Your task to perform on an android device: add a contact in the contacts app Image 0: 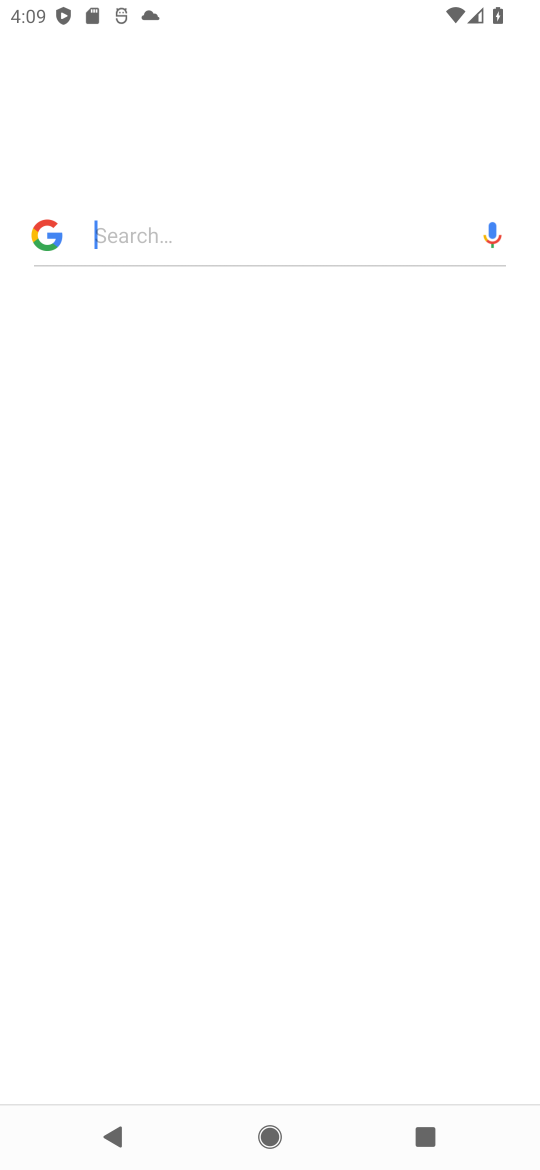
Step 0: press home button
Your task to perform on an android device: add a contact in the contacts app Image 1: 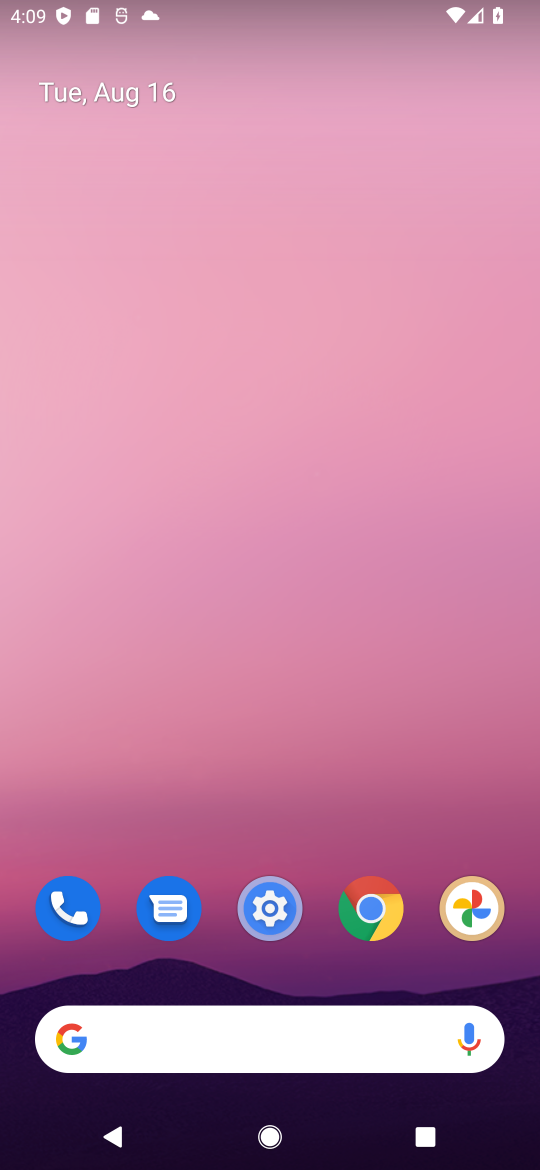
Step 1: drag from (323, 864) to (346, 0)
Your task to perform on an android device: add a contact in the contacts app Image 2: 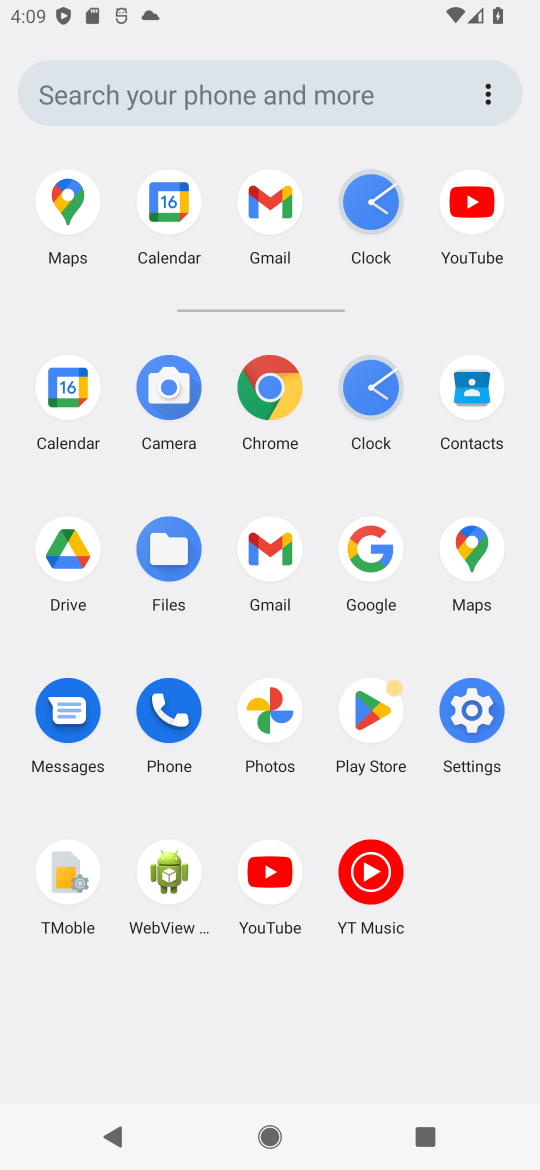
Step 2: click (468, 379)
Your task to perform on an android device: add a contact in the contacts app Image 3: 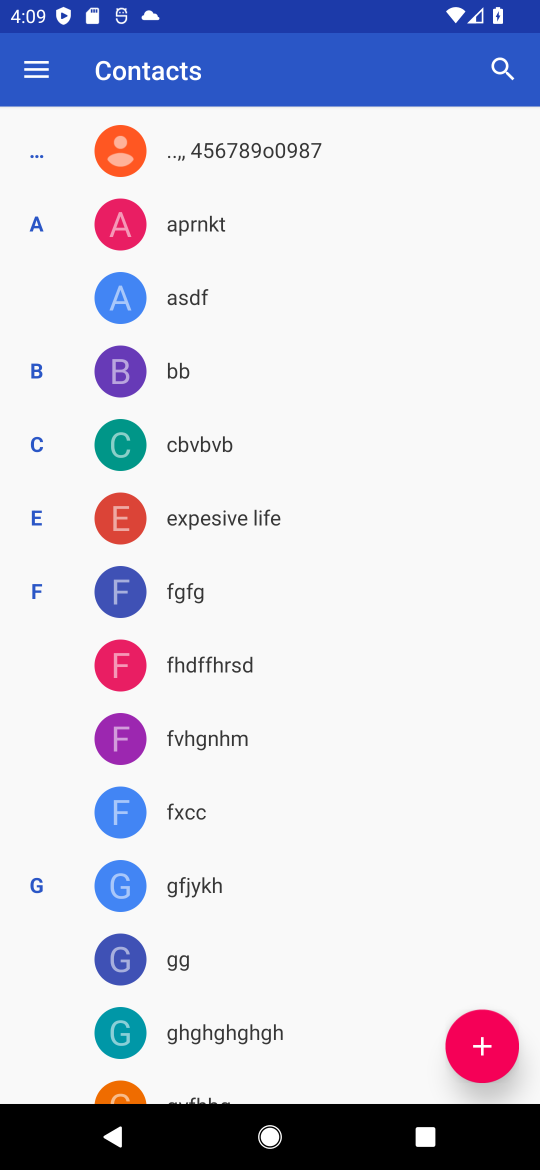
Step 3: click (477, 1039)
Your task to perform on an android device: add a contact in the contacts app Image 4: 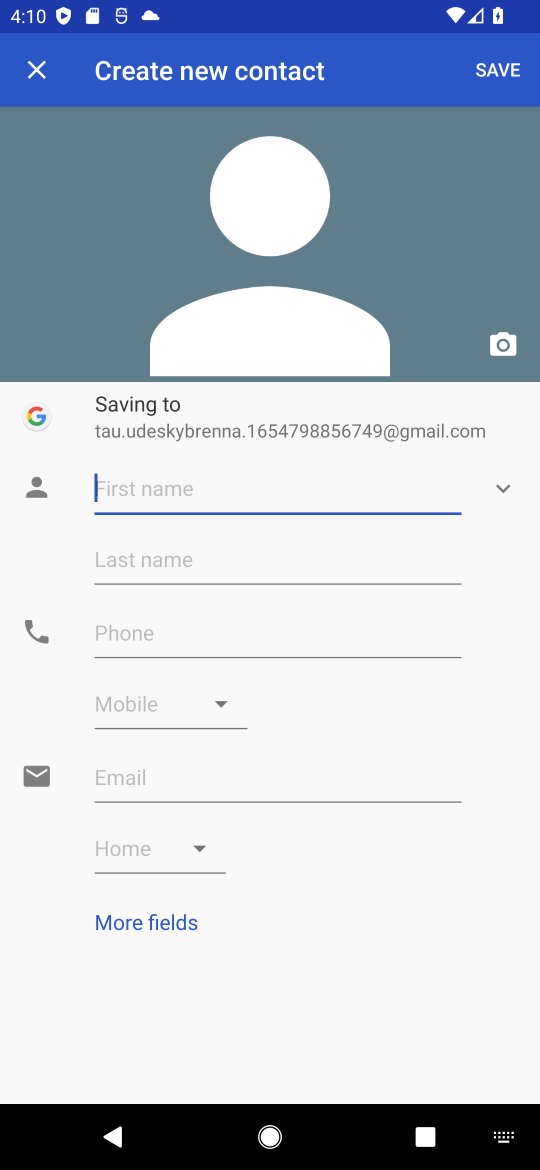
Step 4: type "vtdrftgvhg"
Your task to perform on an android device: add a contact in the contacts app Image 5: 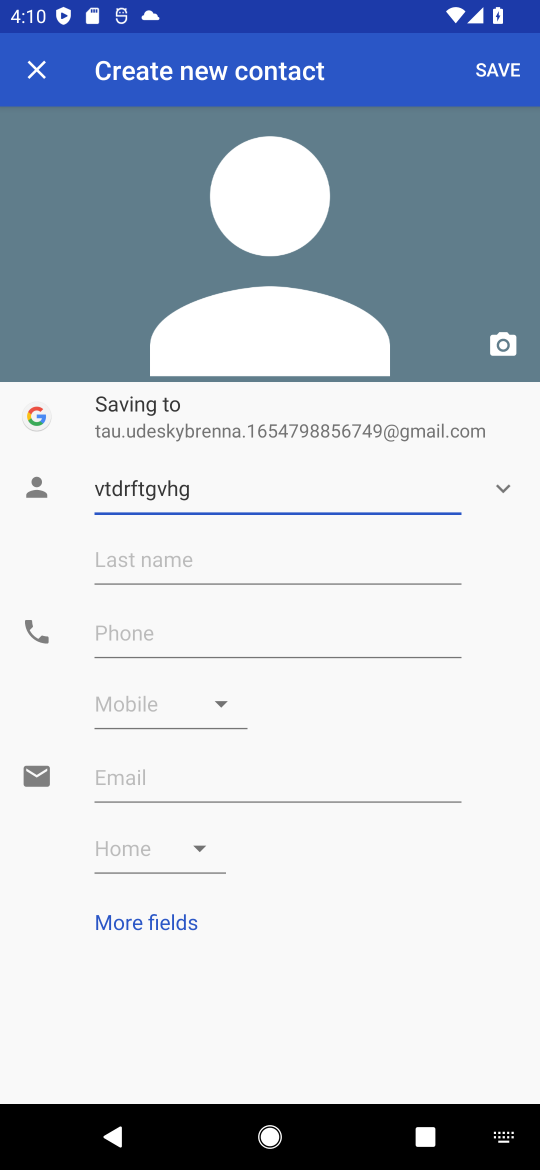
Step 5: click (493, 61)
Your task to perform on an android device: add a contact in the contacts app Image 6: 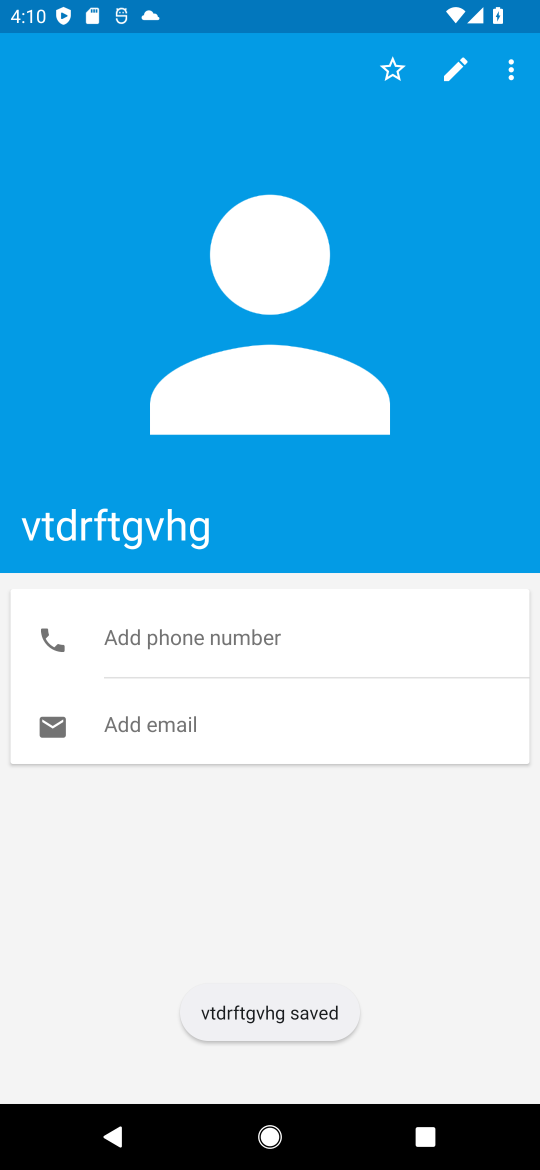
Step 6: task complete